Your task to perform on an android device: open app "Facebook Lite" (install if not already installed) and enter user name: "suppers@inbox.com" and password: "downplayed" Image 0: 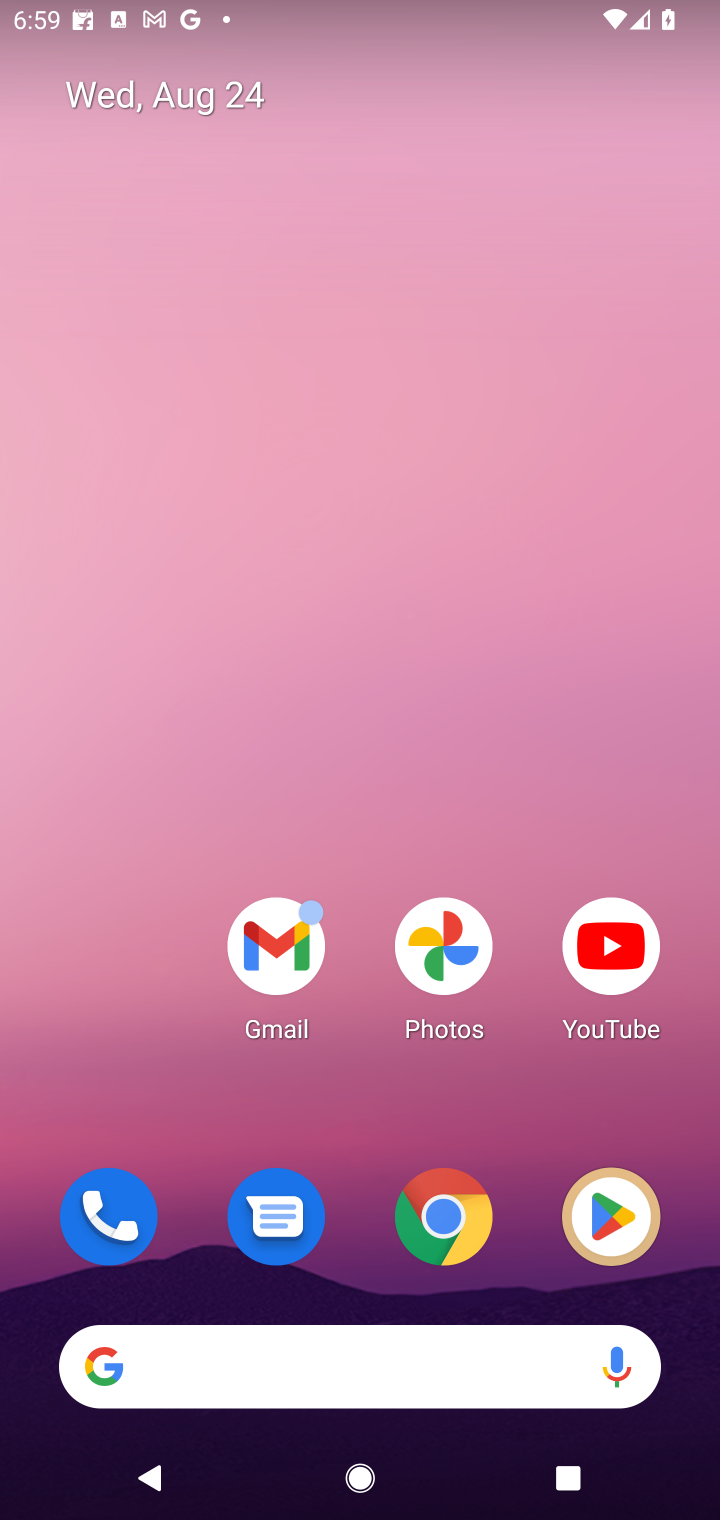
Step 0: click (611, 1202)
Your task to perform on an android device: open app "Facebook Lite" (install if not already installed) and enter user name: "suppers@inbox.com" and password: "downplayed" Image 1: 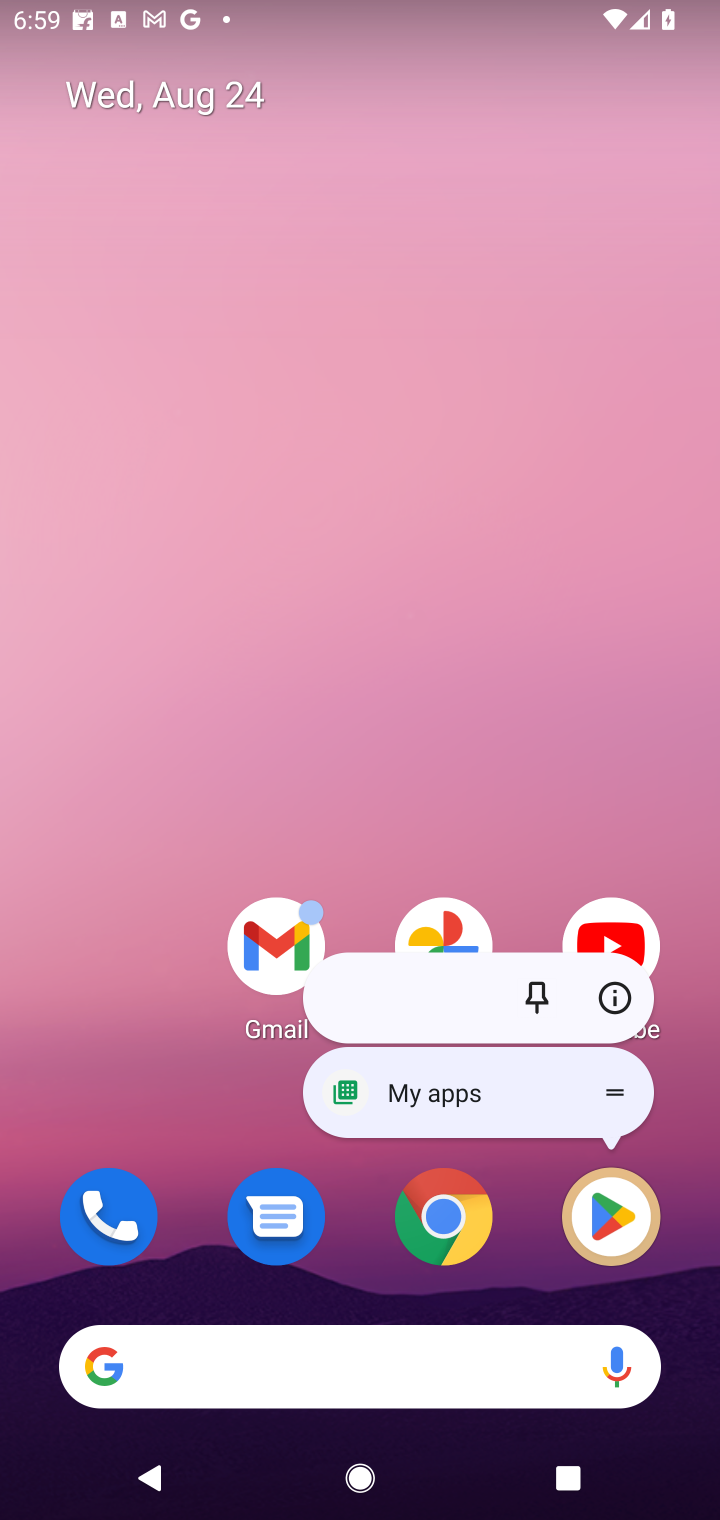
Step 1: click (594, 1205)
Your task to perform on an android device: open app "Facebook Lite" (install if not already installed) and enter user name: "suppers@inbox.com" and password: "downplayed" Image 2: 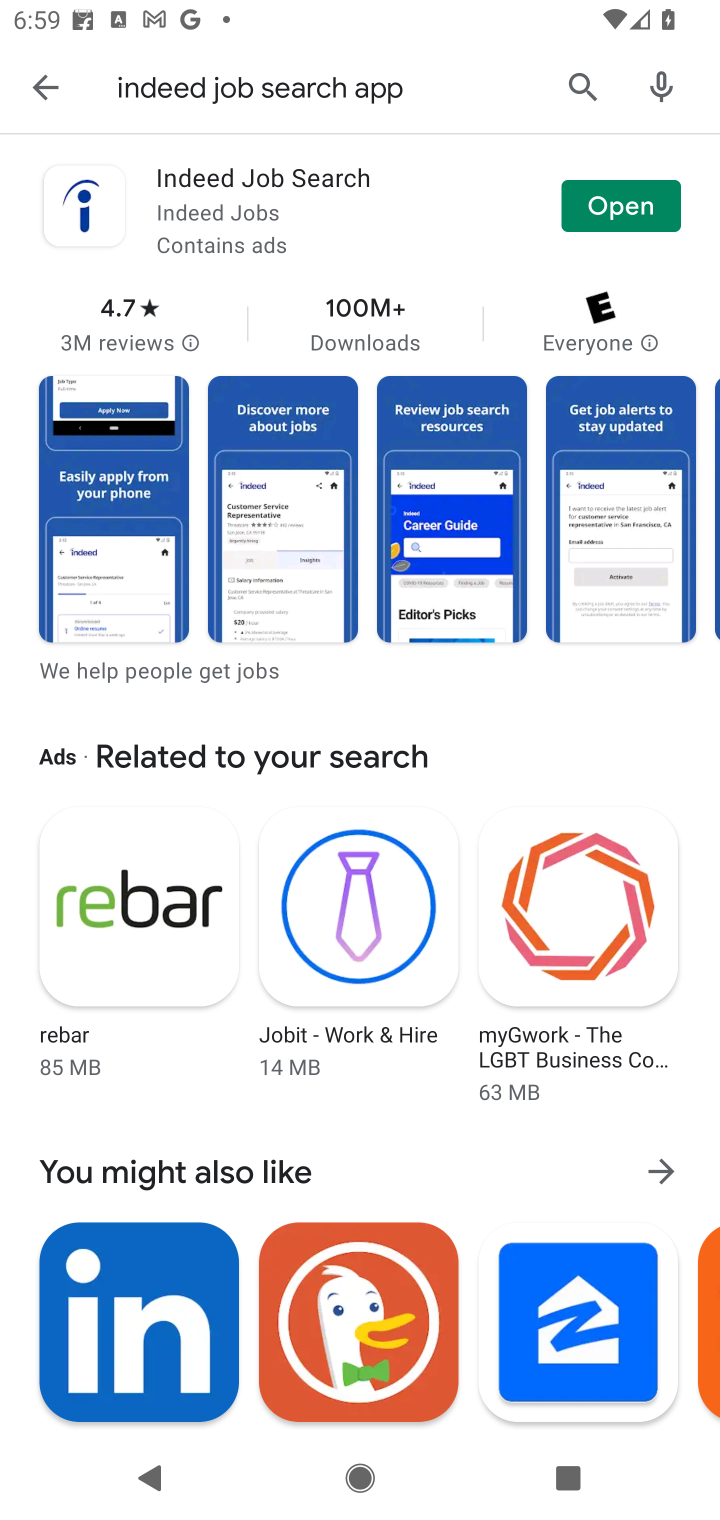
Step 2: click (577, 78)
Your task to perform on an android device: open app "Facebook Lite" (install if not already installed) and enter user name: "suppers@inbox.com" and password: "downplayed" Image 3: 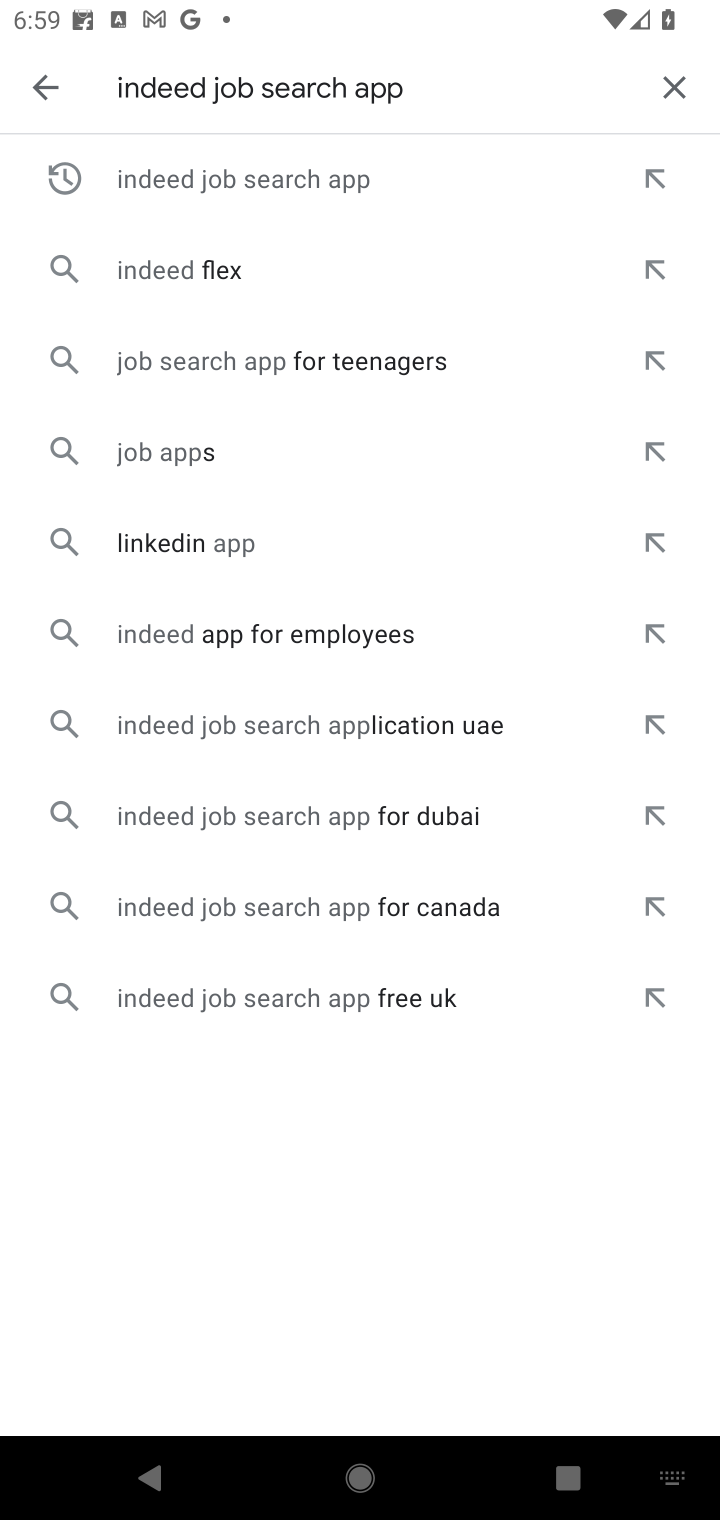
Step 3: click (666, 84)
Your task to perform on an android device: open app "Facebook Lite" (install if not already installed) and enter user name: "suppers@inbox.com" and password: "downplayed" Image 4: 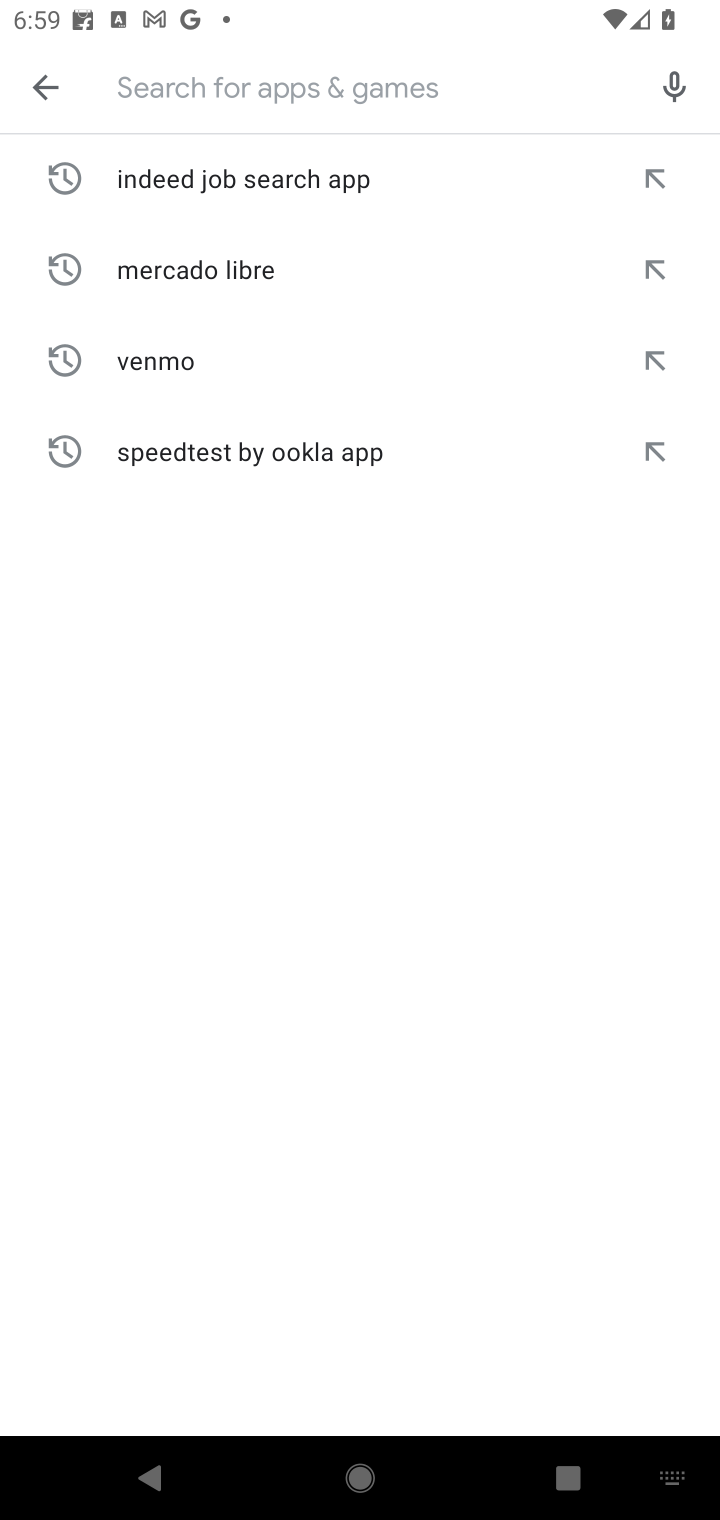
Step 4: type "Facebook Lite"
Your task to perform on an android device: open app "Facebook Lite" (install if not already installed) and enter user name: "suppers@inbox.com" and password: "downplayed" Image 5: 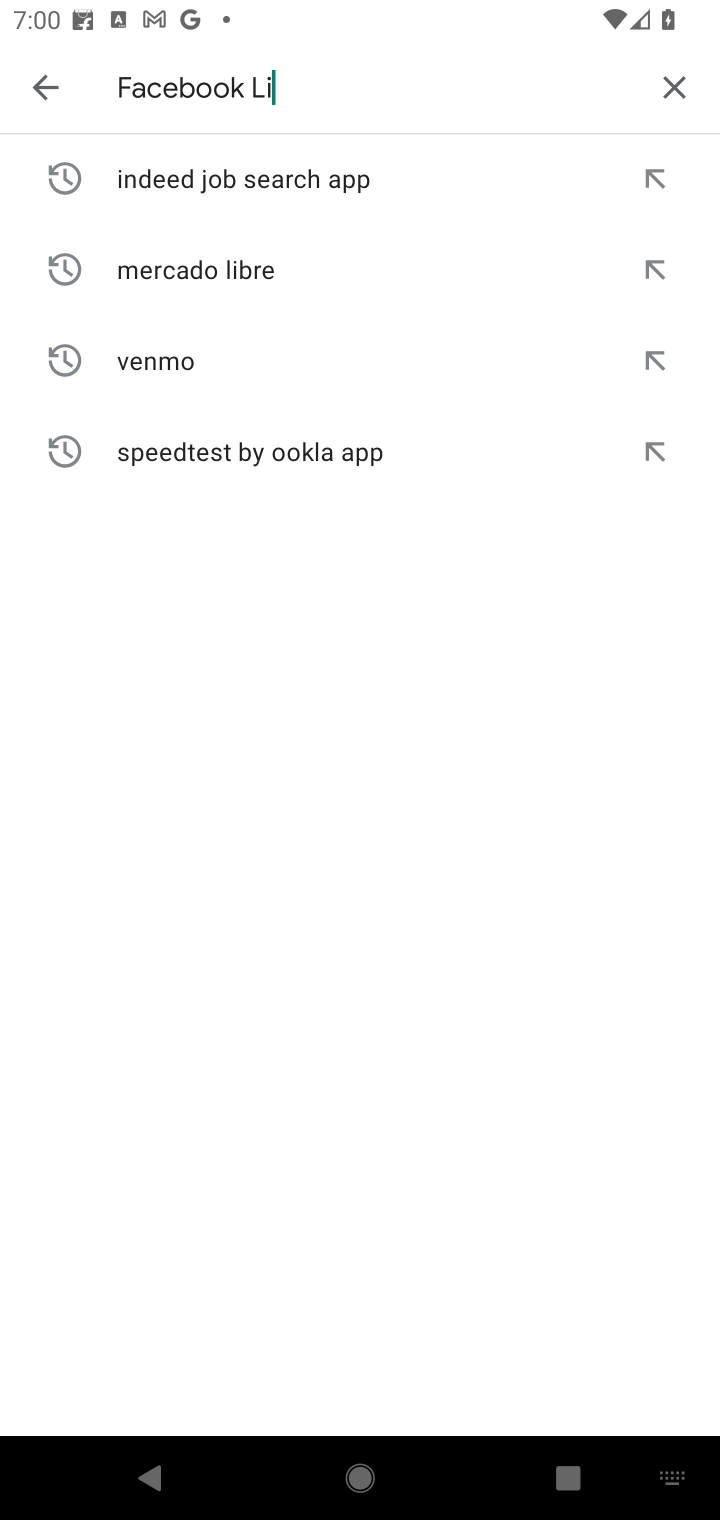
Step 5: type ""
Your task to perform on an android device: open app "Facebook Lite" (install if not already installed) and enter user name: "suppers@inbox.com" and password: "downplayed" Image 6: 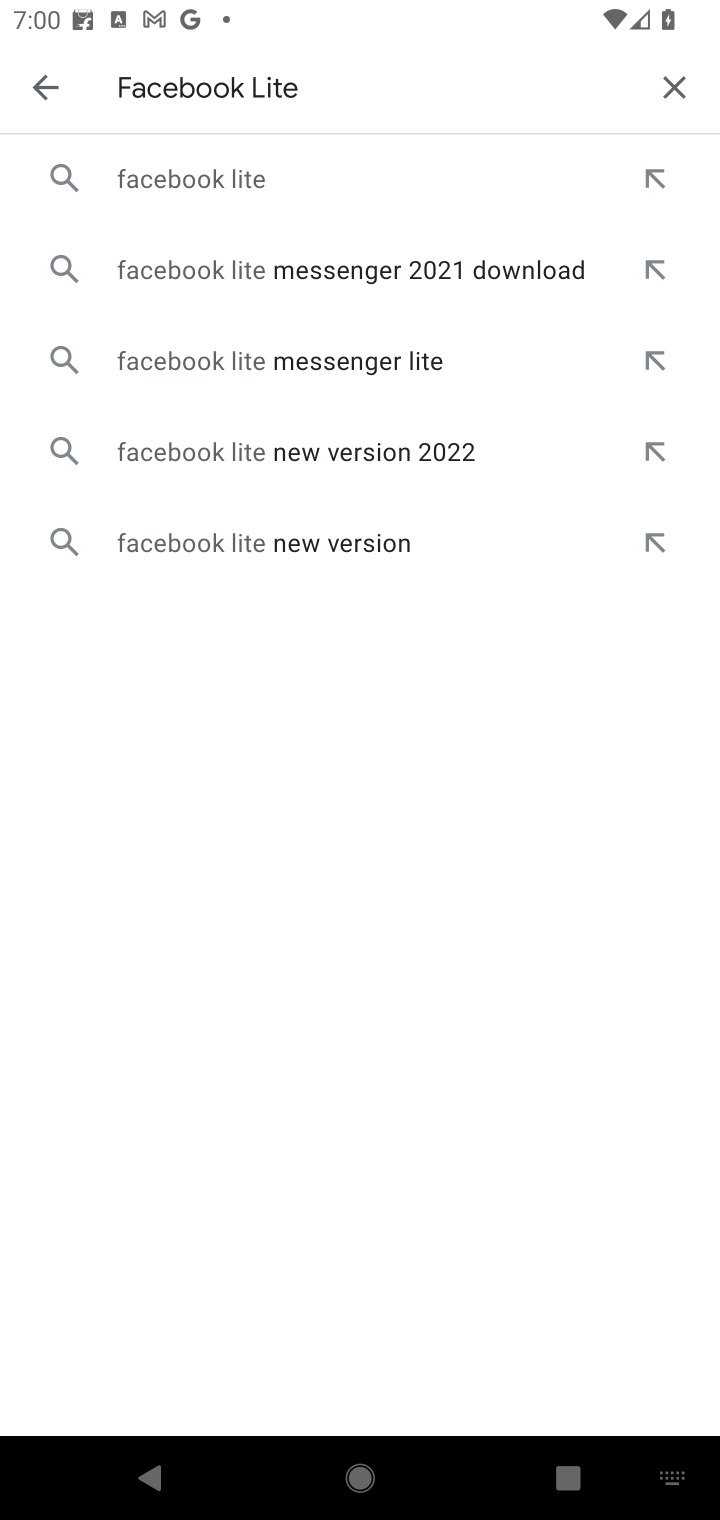
Step 6: click (362, 178)
Your task to perform on an android device: open app "Facebook Lite" (install if not already installed) and enter user name: "suppers@inbox.com" and password: "downplayed" Image 7: 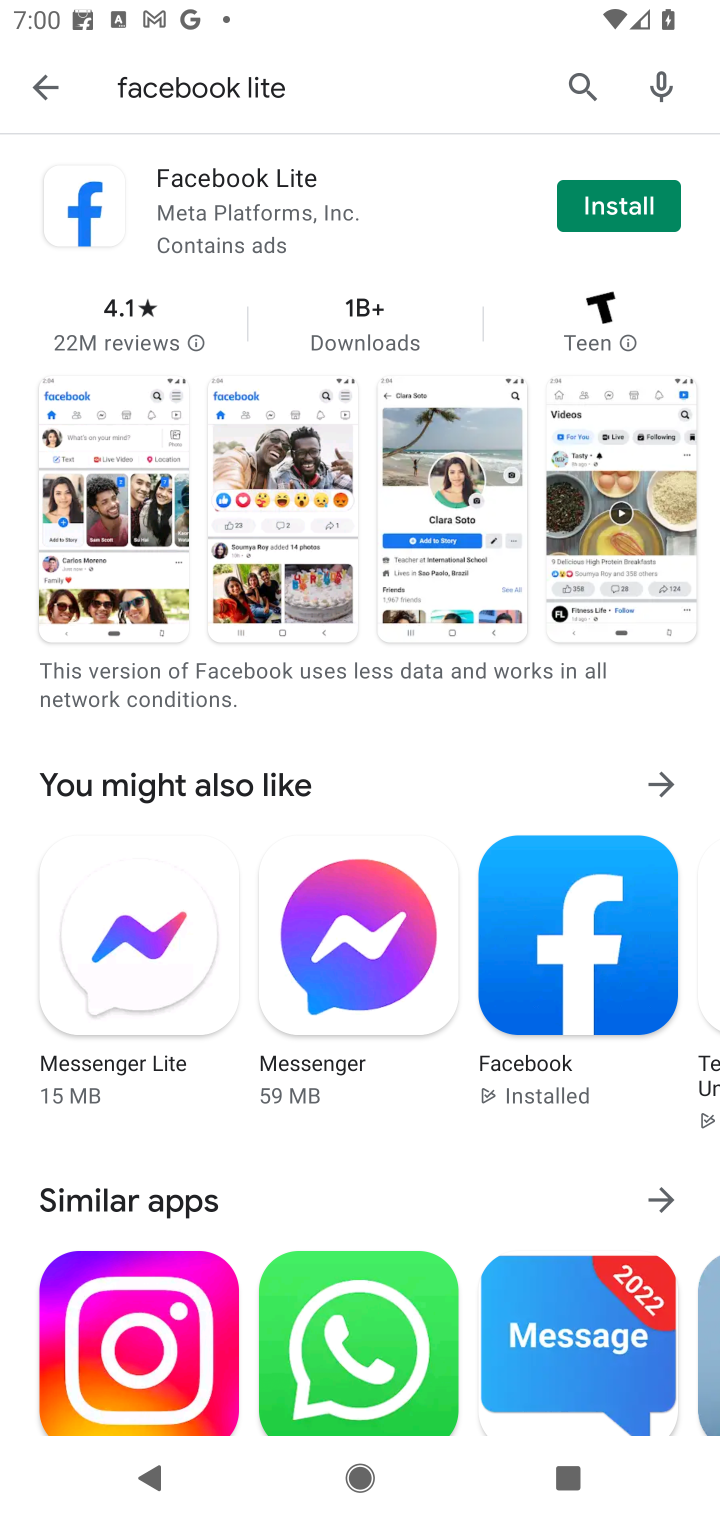
Step 7: click (628, 213)
Your task to perform on an android device: open app "Facebook Lite" (install if not already installed) and enter user name: "suppers@inbox.com" and password: "downplayed" Image 8: 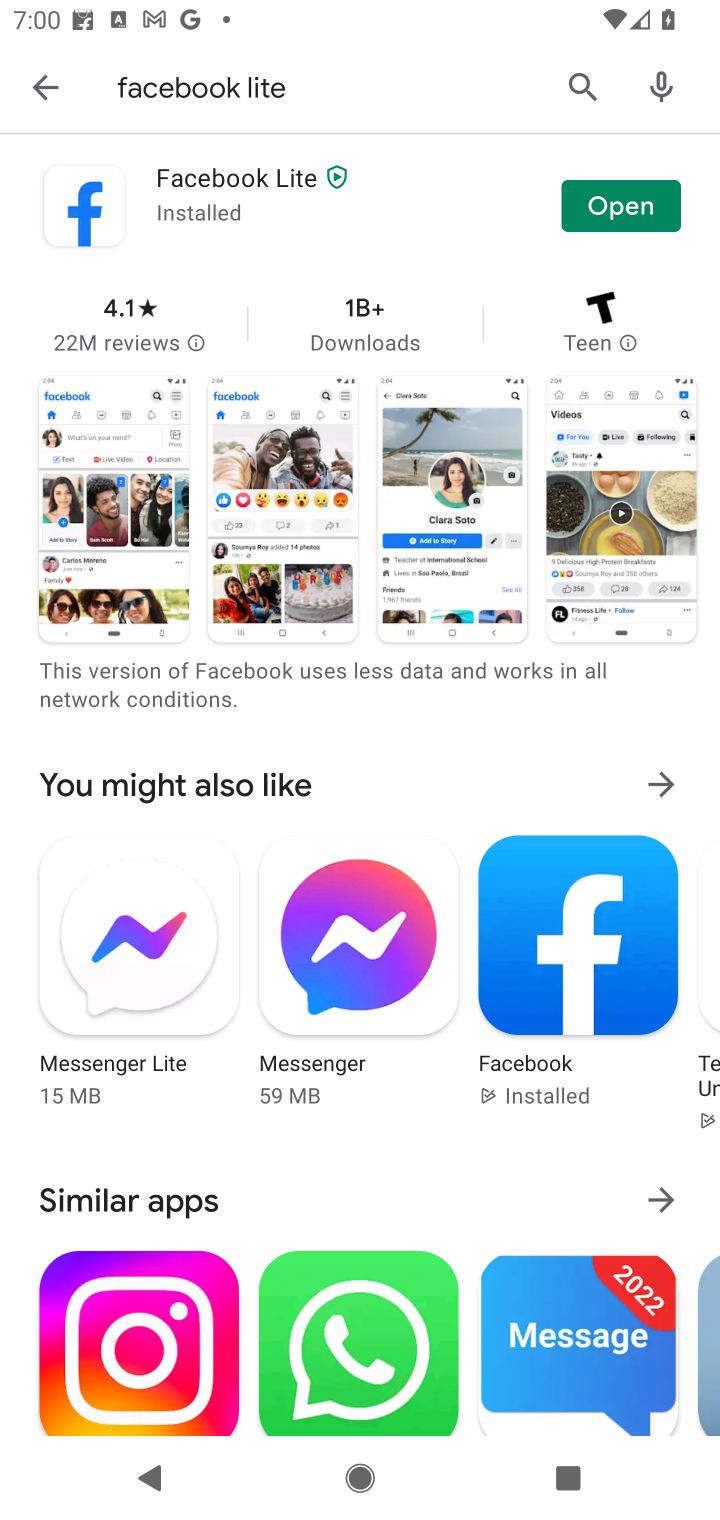
Step 8: click (650, 215)
Your task to perform on an android device: open app "Facebook Lite" (install if not already installed) and enter user name: "suppers@inbox.com" and password: "downplayed" Image 9: 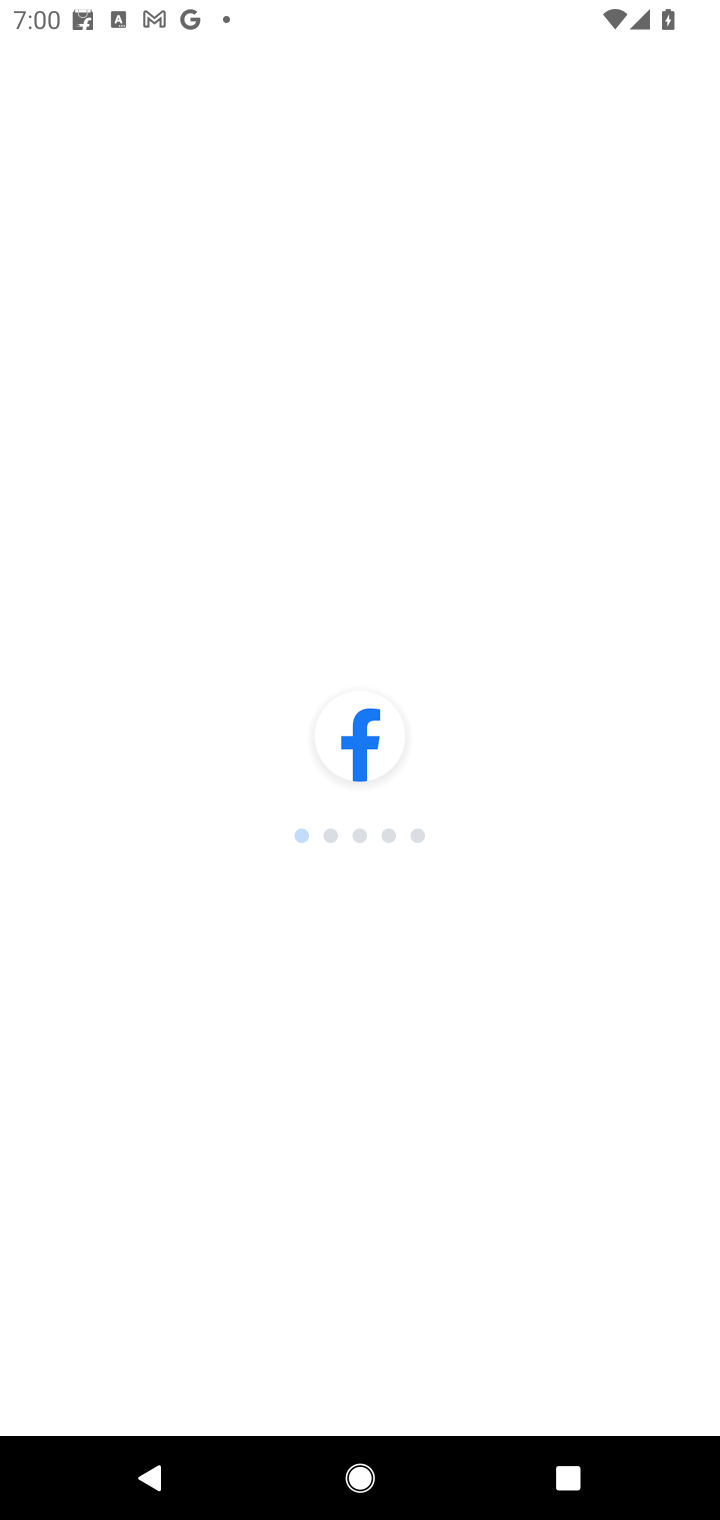
Step 9: press home button
Your task to perform on an android device: open app "Facebook Lite" (install if not already installed) and enter user name: "suppers@inbox.com" and password: "downplayed" Image 10: 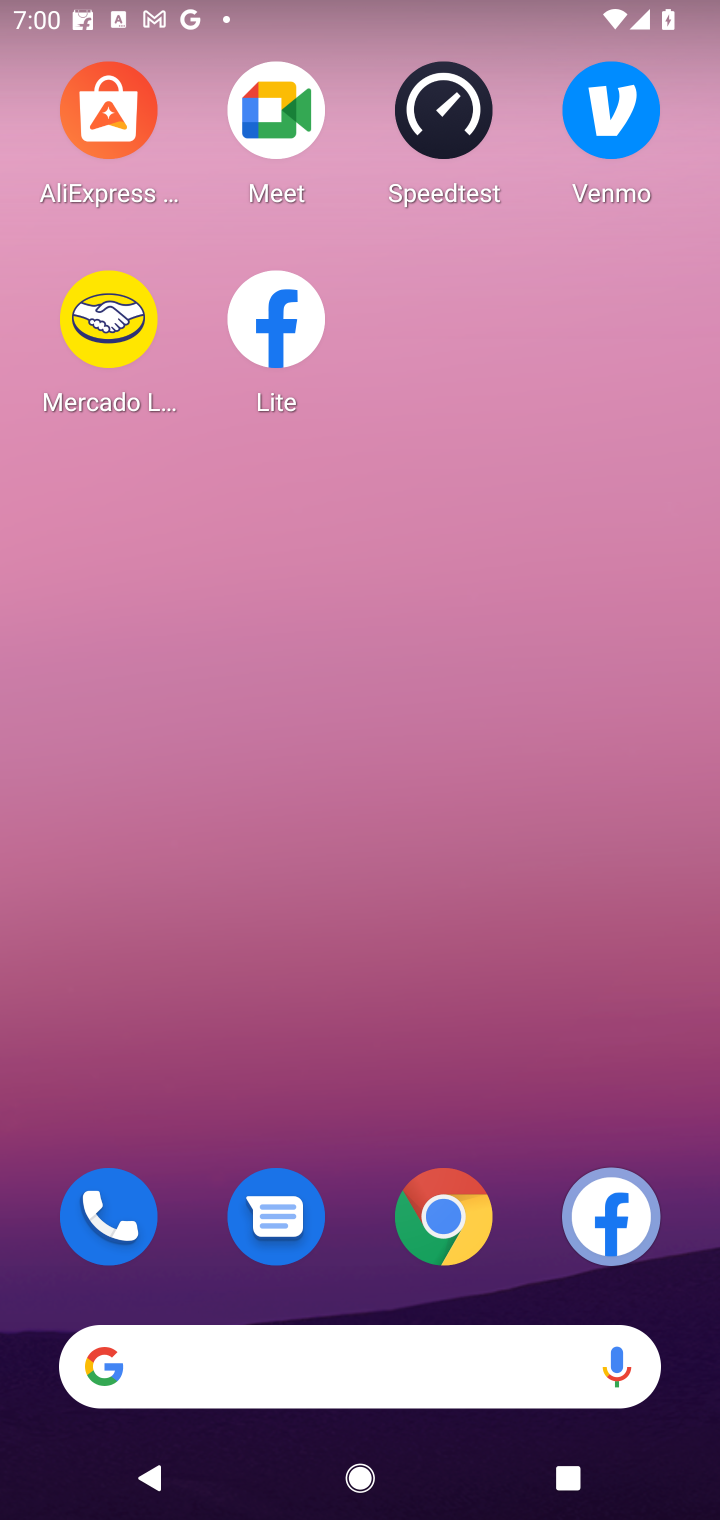
Step 10: drag from (370, 1089) to (360, 225)
Your task to perform on an android device: open app "Facebook Lite" (install if not already installed) and enter user name: "suppers@inbox.com" and password: "downplayed" Image 11: 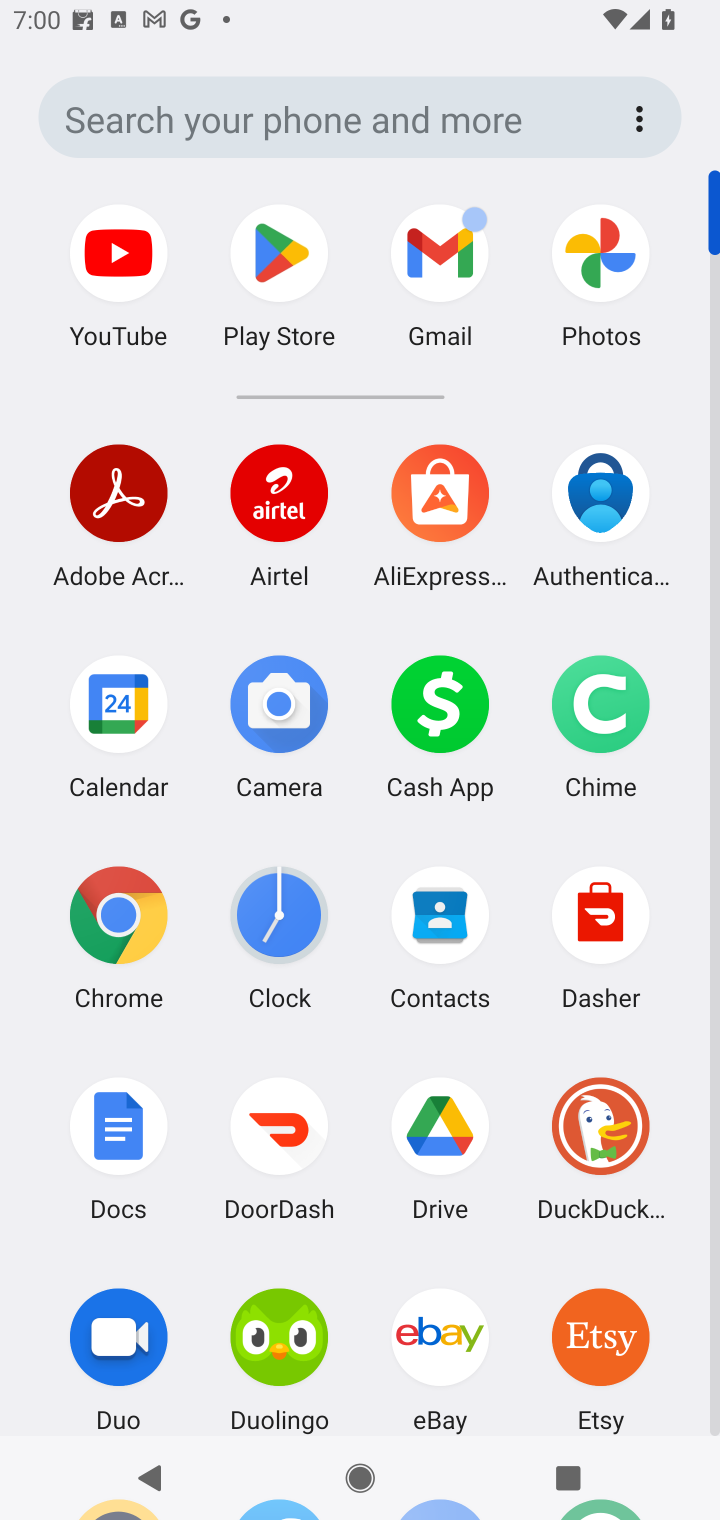
Step 11: click (257, 255)
Your task to perform on an android device: open app "Facebook Lite" (install if not already installed) and enter user name: "suppers@inbox.com" and password: "downplayed" Image 12: 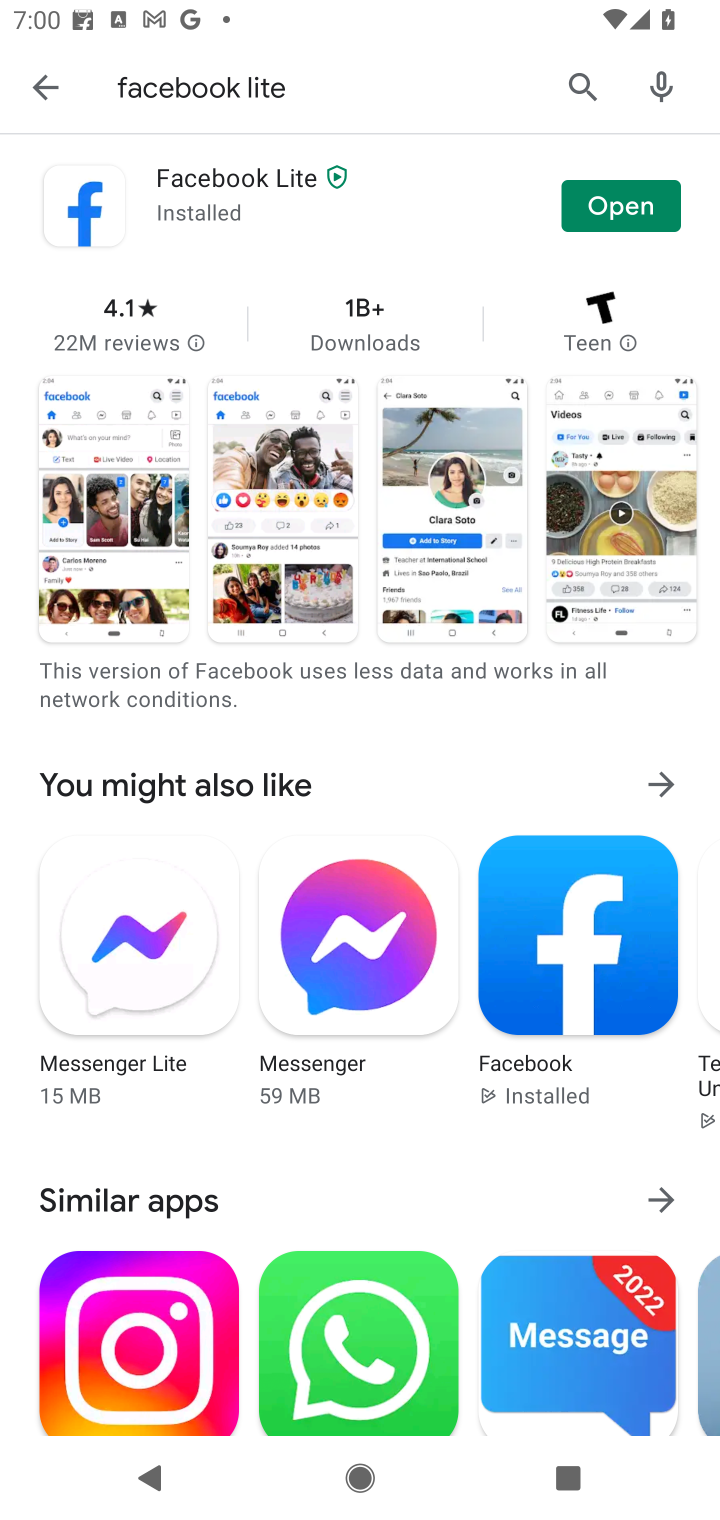
Step 12: click (596, 75)
Your task to perform on an android device: open app "Facebook Lite" (install if not already installed) and enter user name: "suppers@inbox.com" and password: "downplayed" Image 13: 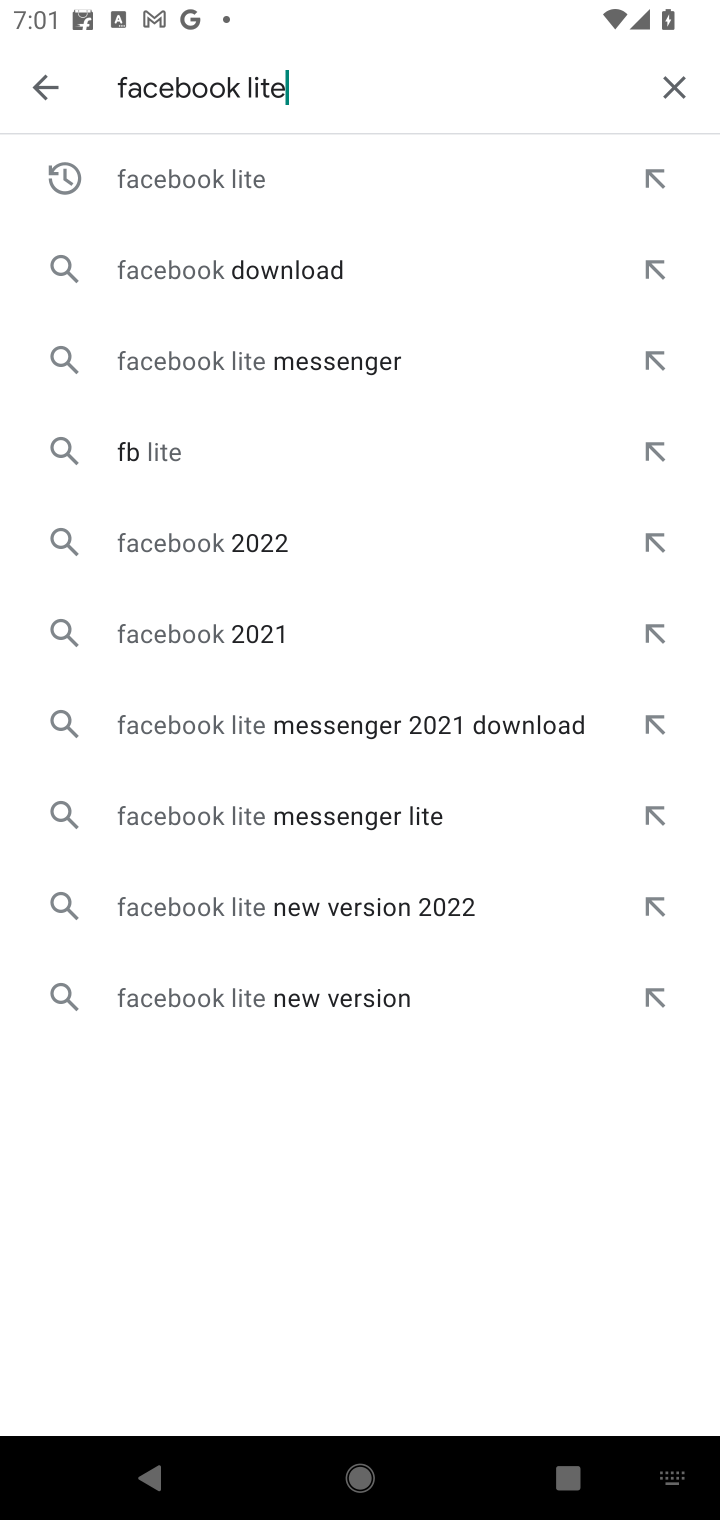
Step 13: click (670, 98)
Your task to perform on an android device: open app "Facebook Lite" (install if not already installed) and enter user name: "suppers@inbox.com" and password: "downplayed" Image 14: 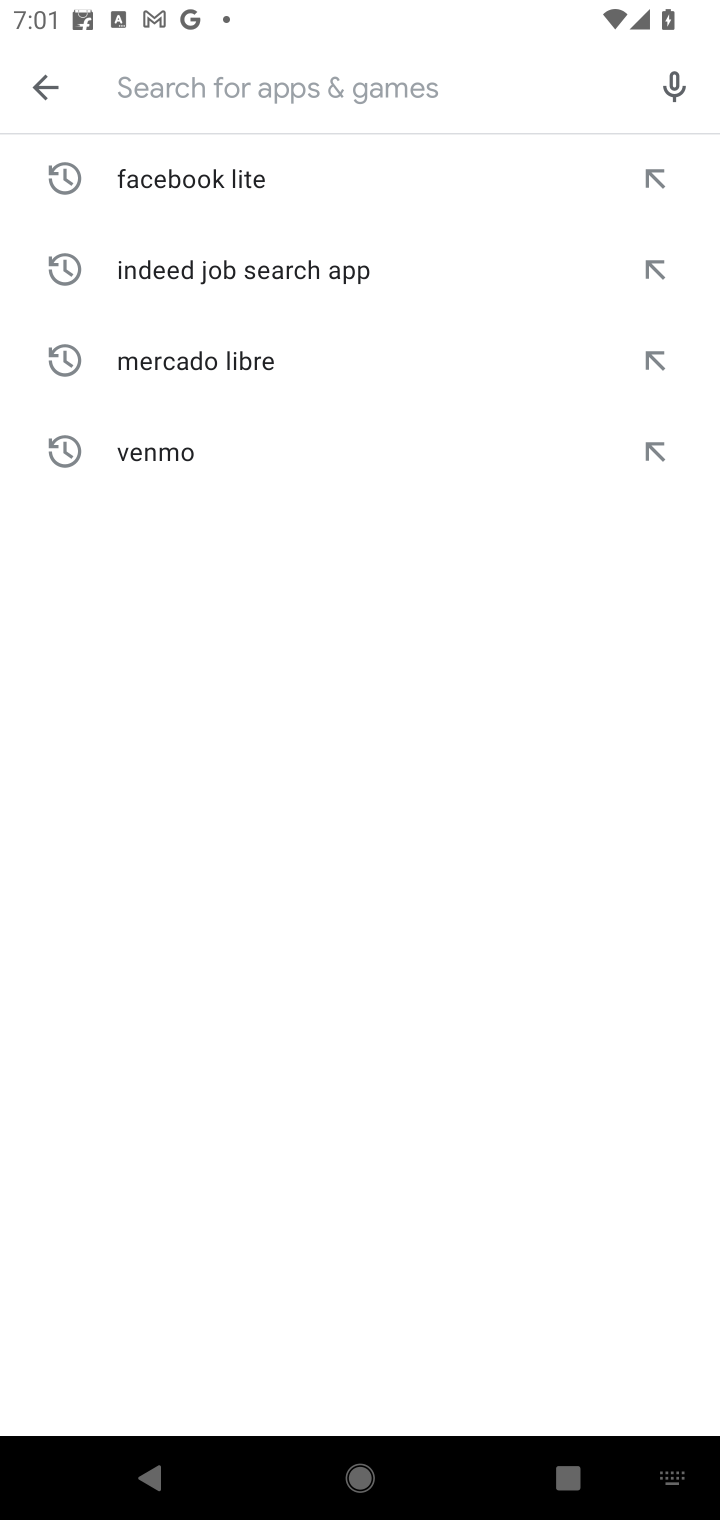
Step 14: click (267, 191)
Your task to perform on an android device: open app "Facebook Lite" (install if not already installed) and enter user name: "suppers@inbox.com" and password: "downplayed" Image 15: 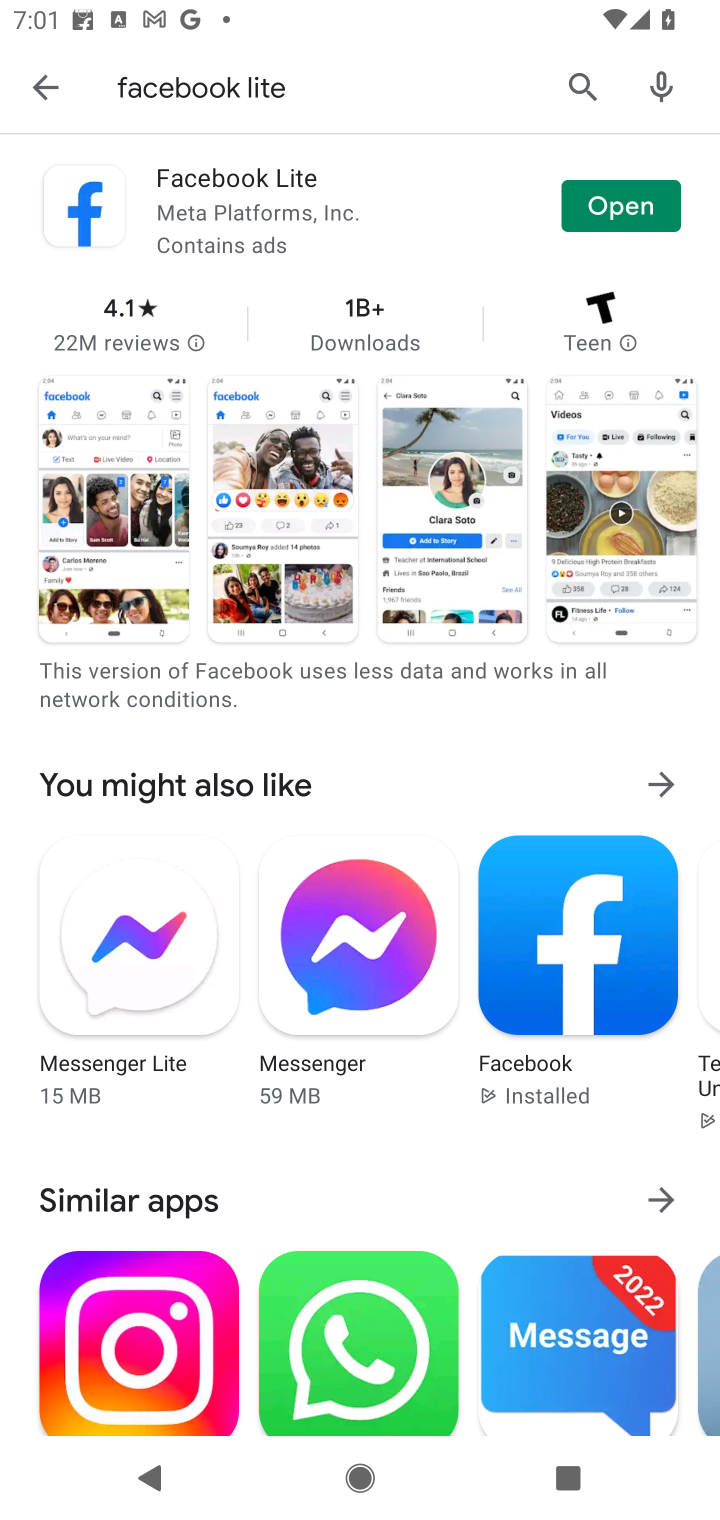
Step 15: click (583, 196)
Your task to perform on an android device: open app "Facebook Lite" (install if not already installed) and enter user name: "suppers@inbox.com" and password: "downplayed" Image 16: 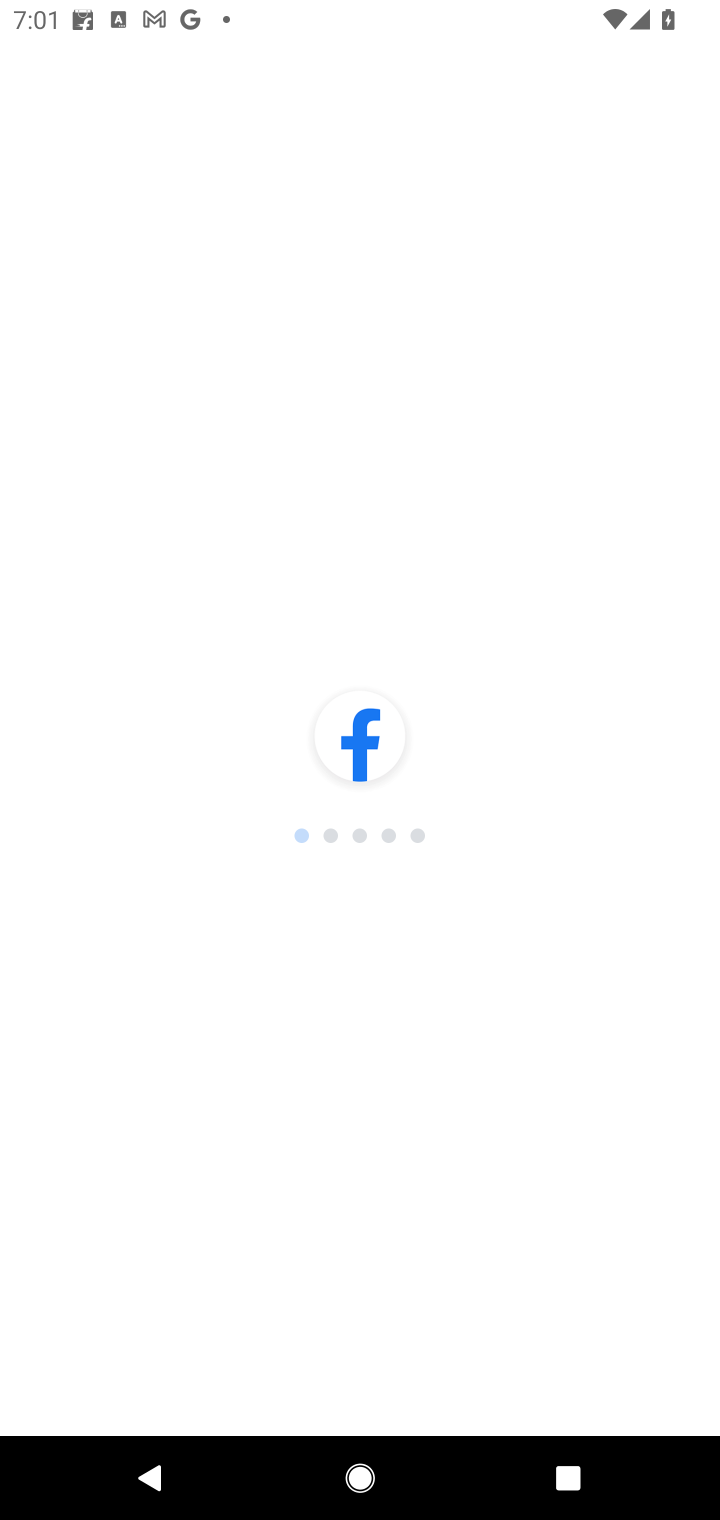
Step 16: task complete